Your task to perform on an android device: Go to Google Image 0: 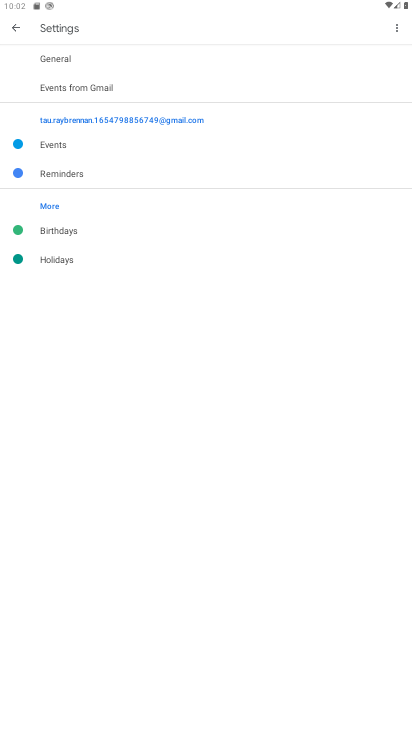
Step 0: press home button
Your task to perform on an android device: Go to Google Image 1: 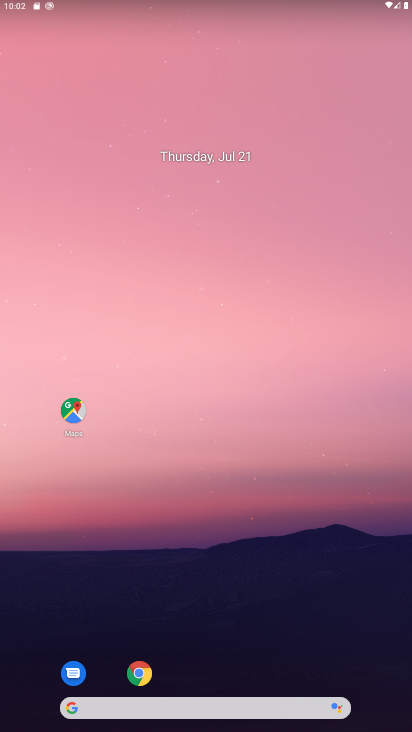
Step 1: drag from (180, 682) to (224, 132)
Your task to perform on an android device: Go to Google Image 2: 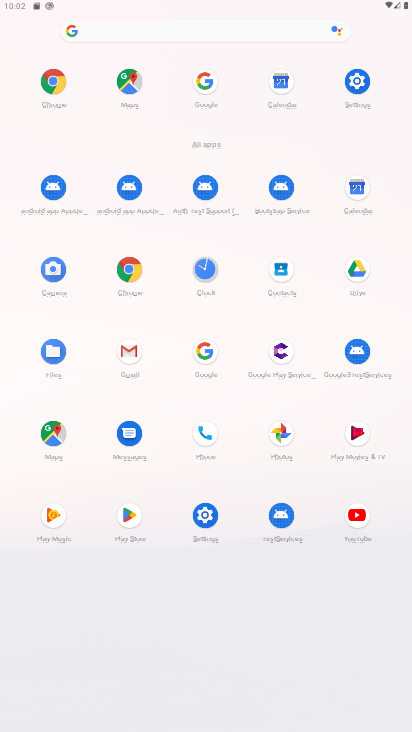
Step 2: click (206, 353)
Your task to perform on an android device: Go to Google Image 3: 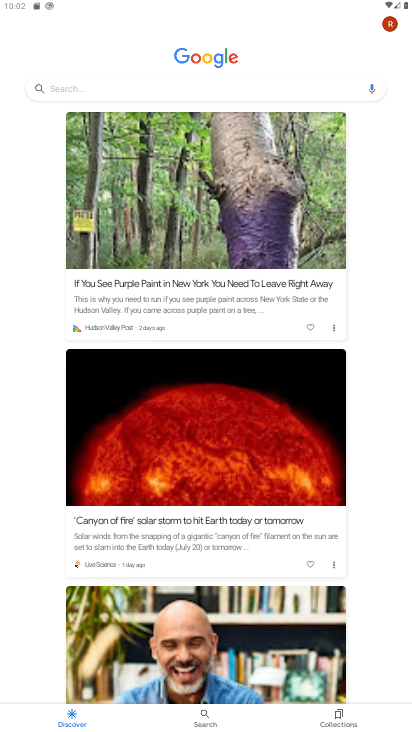
Step 3: task complete